Your task to perform on an android device: toggle javascript in the chrome app Image 0: 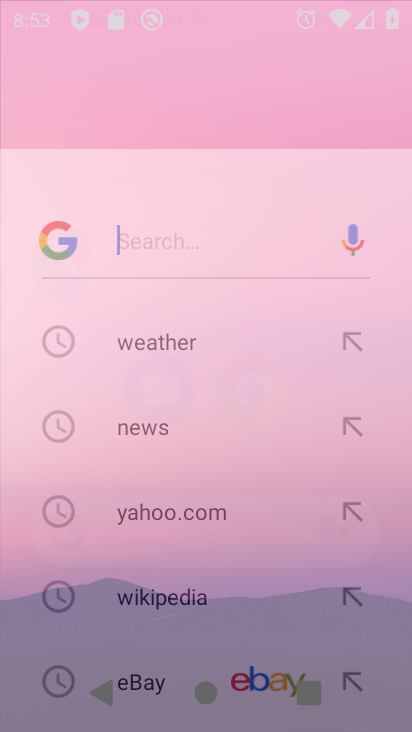
Step 0: click (287, 127)
Your task to perform on an android device: toggle javascript in the chrome app Image 1: 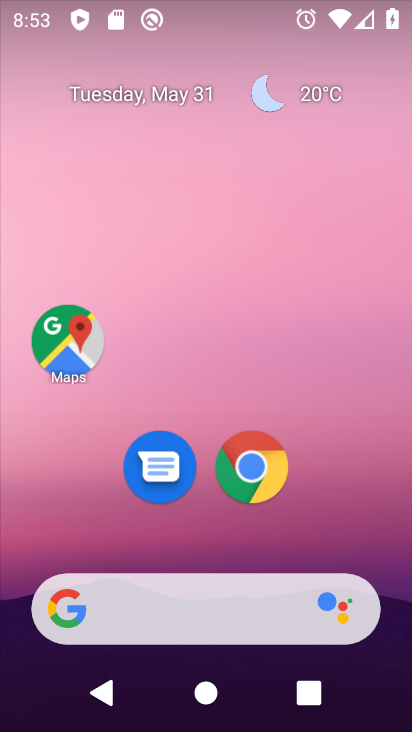
Step 1: drag from (192, 564) to (236, 43)
Your task to perform on an android device: toggle javascript in the chrome app Image 2: 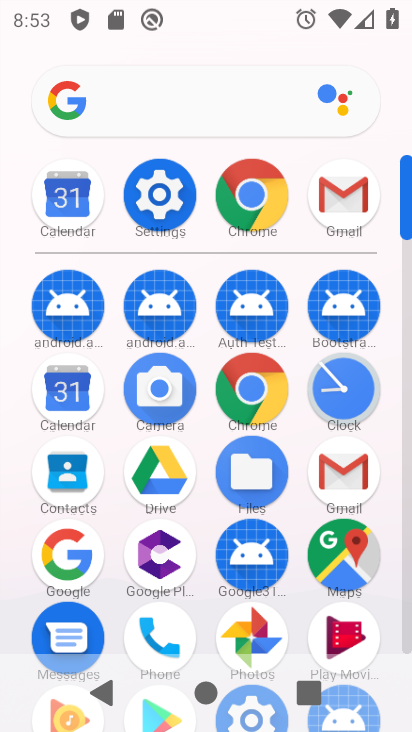
Step 2: click (248, 199)
Your task to perform on an android device: toggle javascript in the chrome app Image 3: 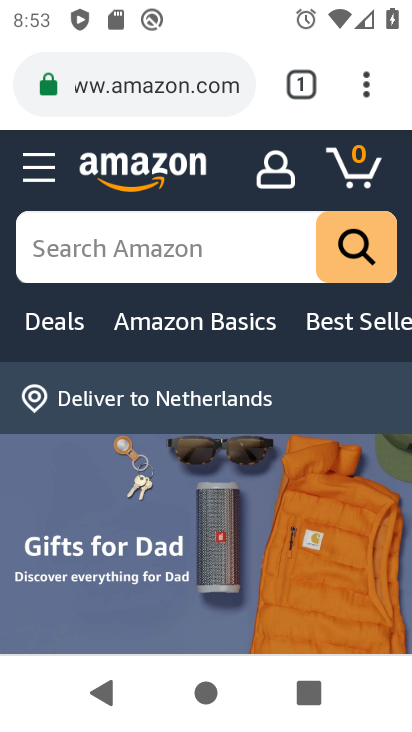
Step 3: drag from (248, 605) to (281, 243)
Your task to perform on an android device: toggle javascript in the chrome app Image 4: 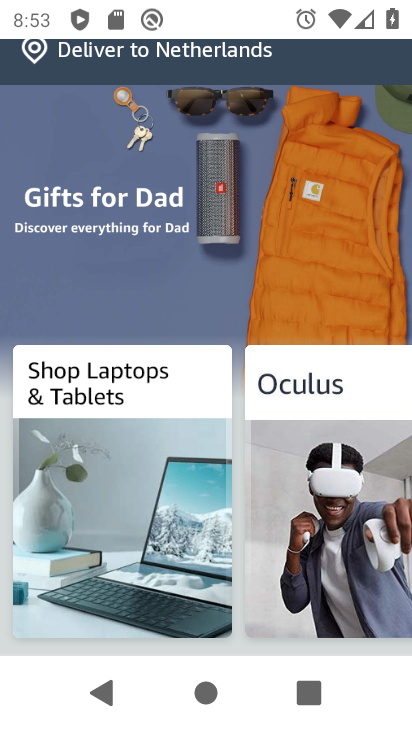
Step 4: drag from (238, 582) to (265, 216)
Your task to perform on an android device: toggle javascript in the chrome app Image 5: 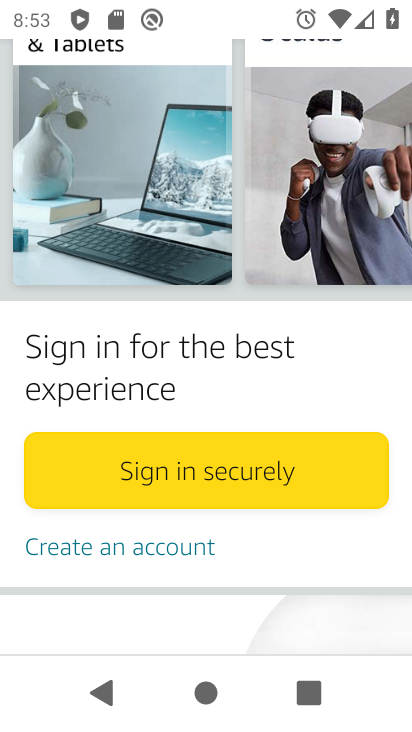
Step 5: drag from (264, 560) to (353, 153)
Your task to perform on an android device: toggle javascript in the chrome app Image 6: 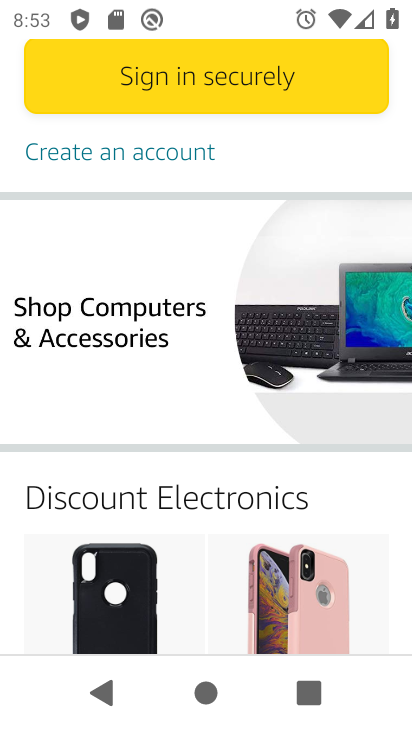
Step 6: drag from (193, 203) to (322, 729)
Your task to perform on an android device: toggle javascript in the chrome app Image 7: 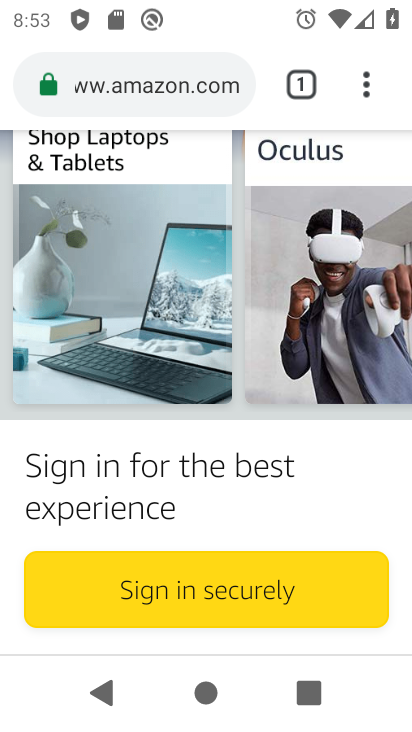
Step 7: drag from (236, 151) to (265, 587)
Your task to perform on an android device: toggle javascript in the chrome app Image 8: 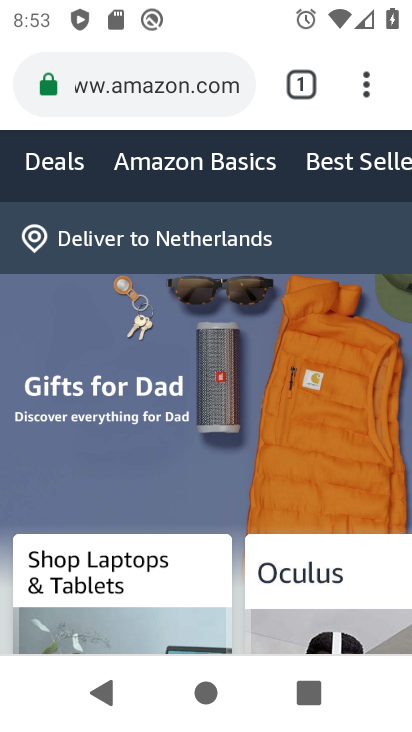
Step 8: drag from (247, 390) to (319, 126)
Your task to perform on an android device: toggle javascript in the chrome app Image 9: 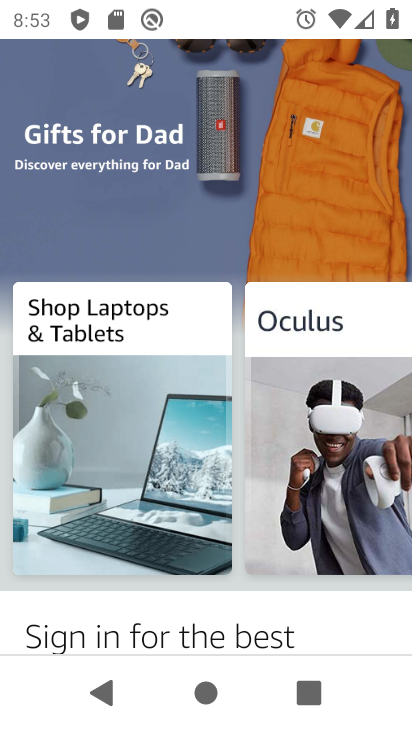
Step 9: drag from (240, 238) to (388, 34)
Your task to perform on an android device: toggle javascript in the chrome app Image 10: 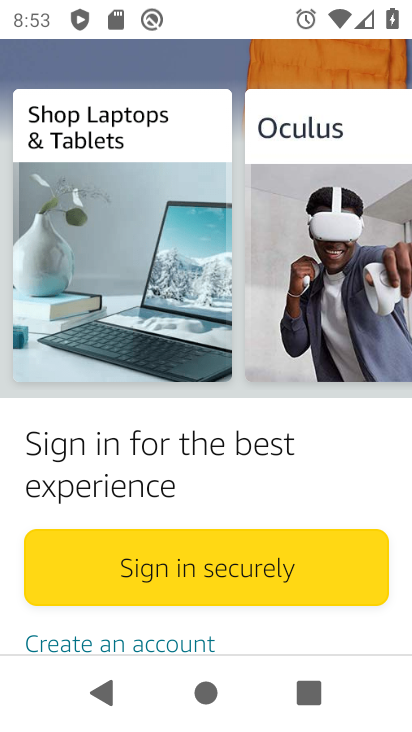
Step 10: drag from (216, 180) to (411, 237)
Your task to perform on an android device: toggle javascript in the chrome app Image 11: 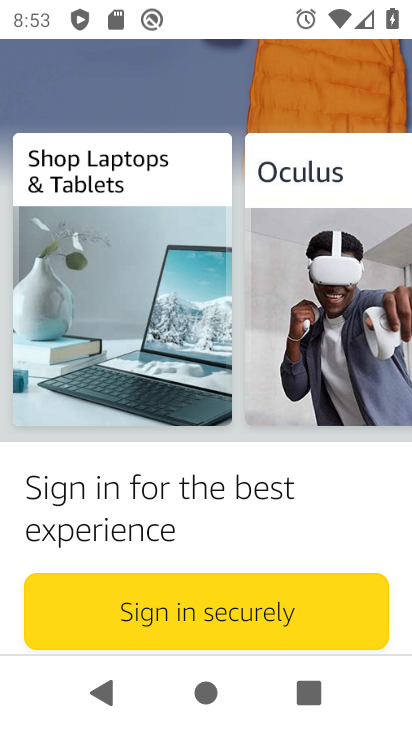
Step 11: click (356, 69)
Your task to perform on an android device: toggle javascript in the chrome app Image 12: 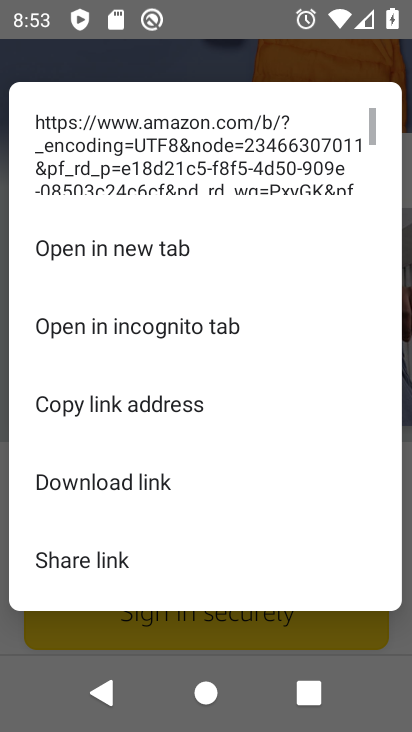
Step 12: drag from (356, 72) to (362, 346)
Your task to perform on an android device: toggle javascript in the chrome app Image 13: 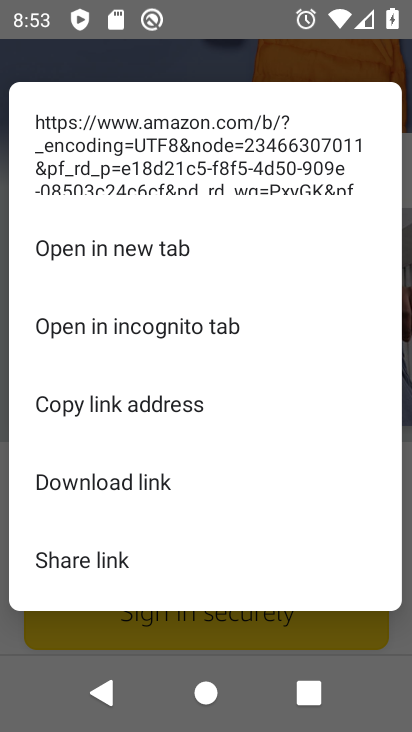
Step 13: press back button
Your task to perform on an android device: toggle javascript in the chrome app Image 14: 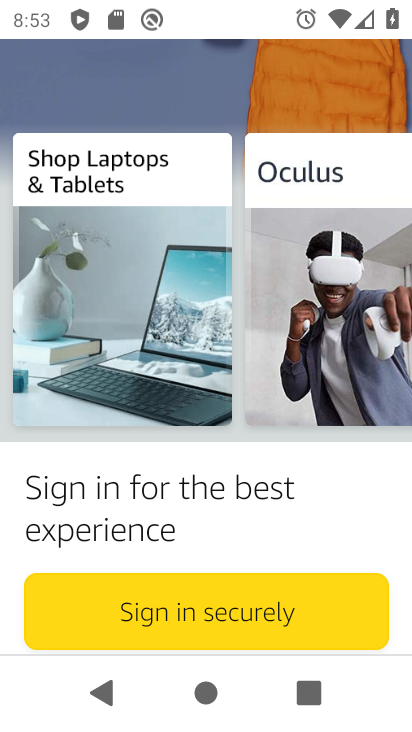
Step 14: drag from (295, 69) to (268, 544)
Your task to perform on an android device: toggle javascript in the chrome app Image 15: 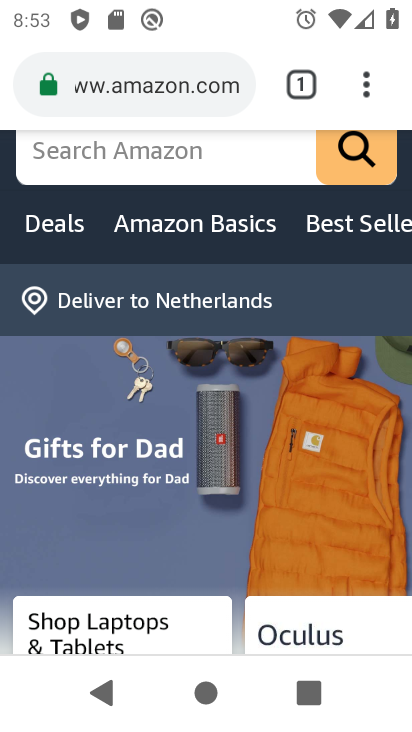
Step 15: drag from (371, 99) to (150, 529)
Your task to perform on an android device: toggle javascript in the chrome app Image 16: 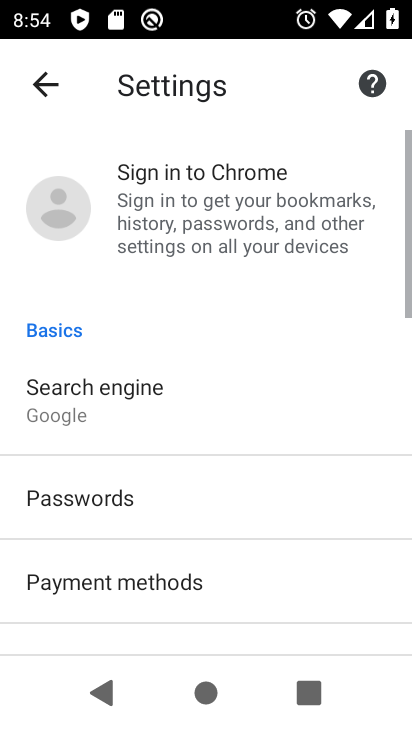
Step 16: drag from (279, 550) to (316, 172)
Your task to perform on an android device: toggle javascript in the chrome app Image 17: 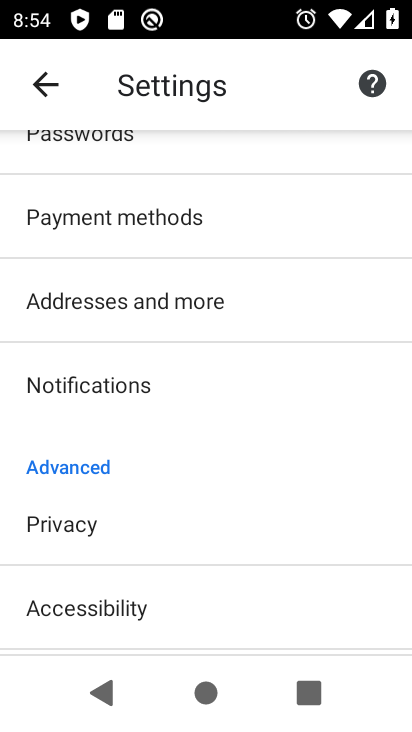
Step 17: drag from (202, 528) to (249, 44)
Your task to perform on an android device: toggle javascript in the chrome app Image 18: 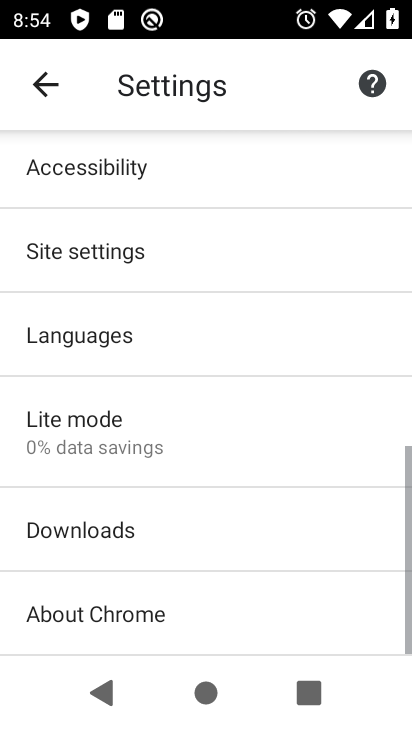
Step 18: drag from (118, 394) to (151, 70)
Your task to perform on an android device: toggle javascript in the chrome app Image 19: 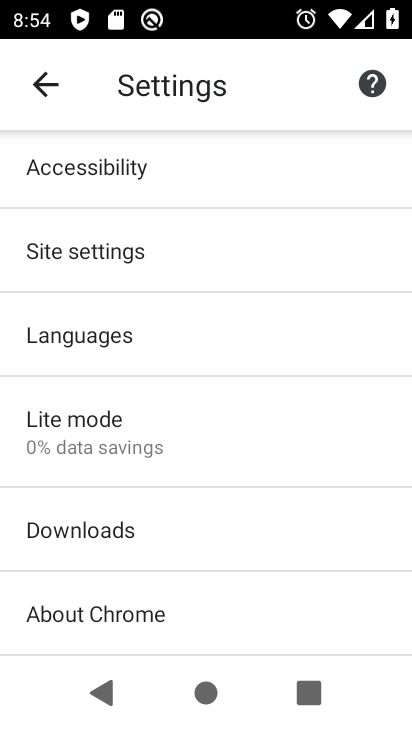
Step 19: click (145, 254)
Your task to perform on an android device: toggle javascript in the chrome app Image 20: 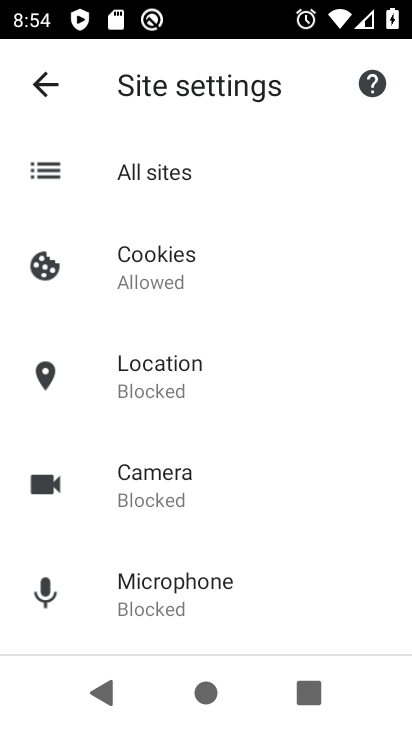
Step 20: drag from (164, 552) to (208, 210)
Your task to perform on an android device: toggle javascript in the chrome app Image 21: 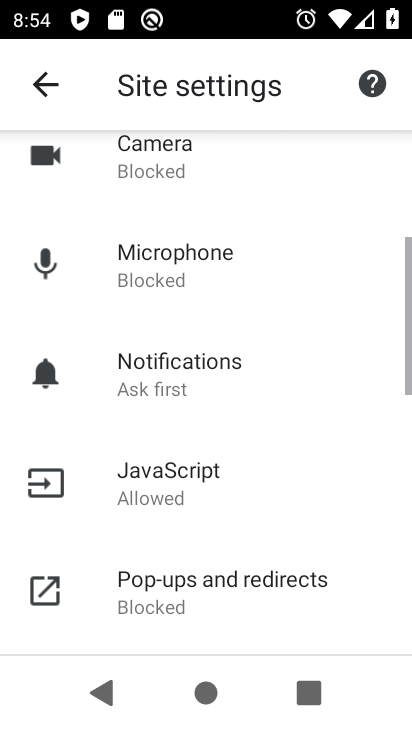
Step 21: click (199, 502)
Your task to perform on an android device: toggle javascript in the chrome app Image 22: 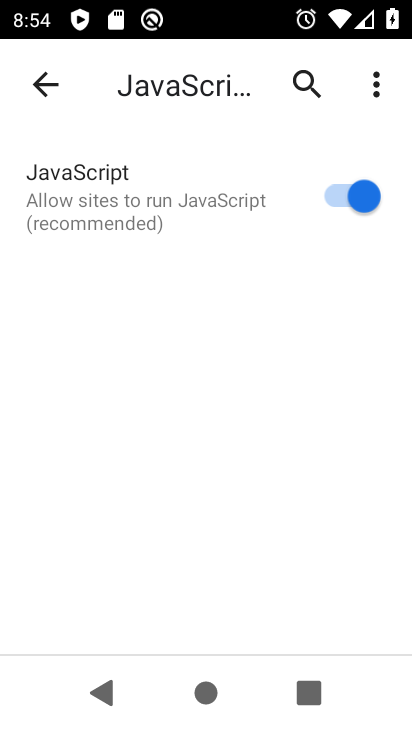
Step 22: drag from (214, 474) to (214, 266)
Your task to perform on an android device: toggle javascript in the chrome app Image 23: 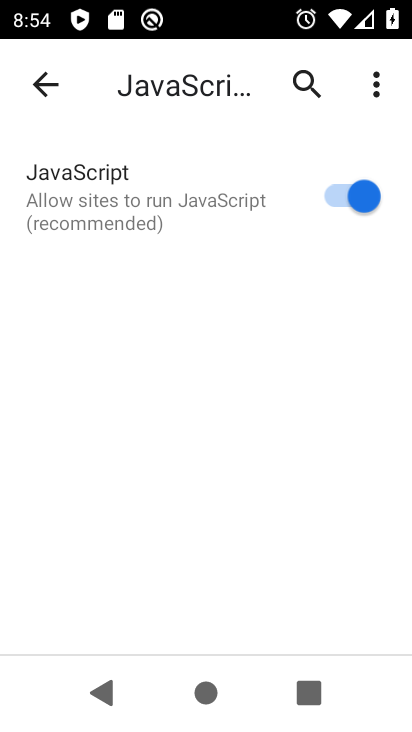
Step 23: drag from (246, 557) to (220, 334)
Your task to perform on an android device: toggle javascript in the chrome app Image 24: 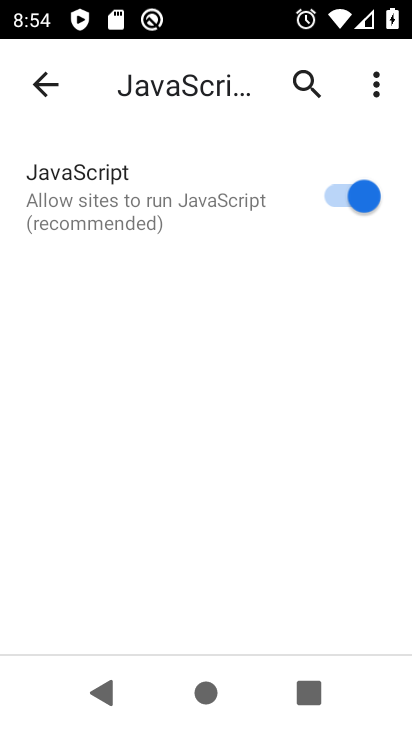
Step 24: click (305, 198)
Your task to perform on an android device: toggle javascript in the chrome app Image 25: 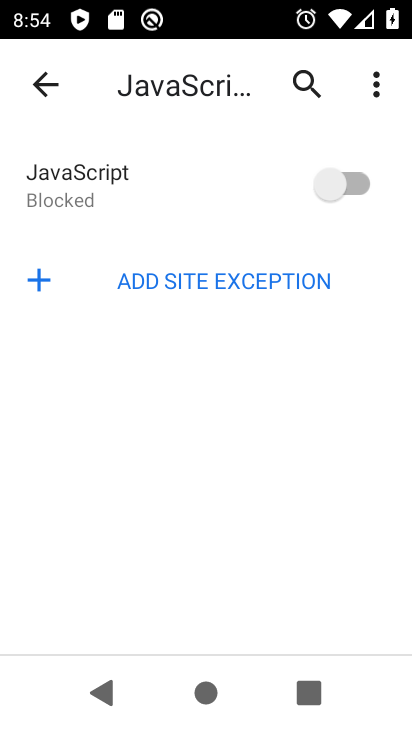
Step 25: task complete